Your task to perform on an android device: What's the weather going to be tomorrow? Image 0: 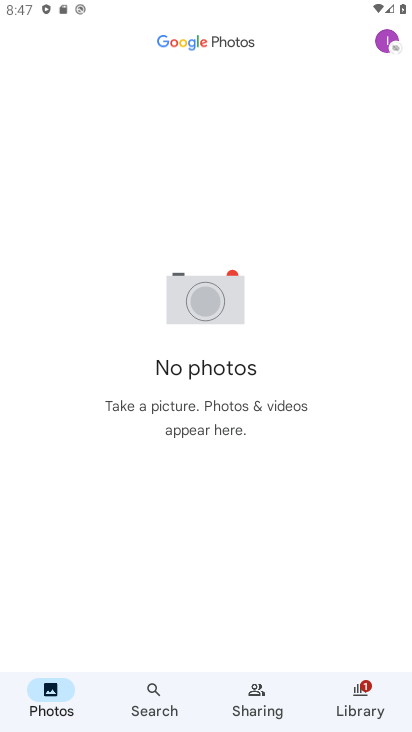
Step 0: press back button
Your task to perform on an android device: What's the weather going to be tomorrow? Image 1: 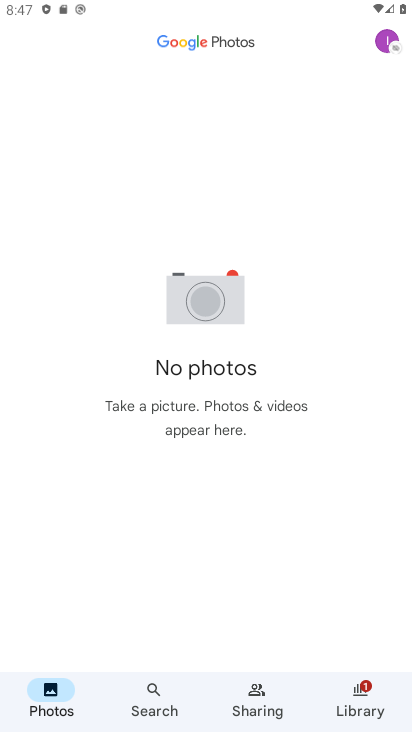
Step 1: press back button
Your task to perform on an android device: What's the weather going to be tomorrow? Image 2: 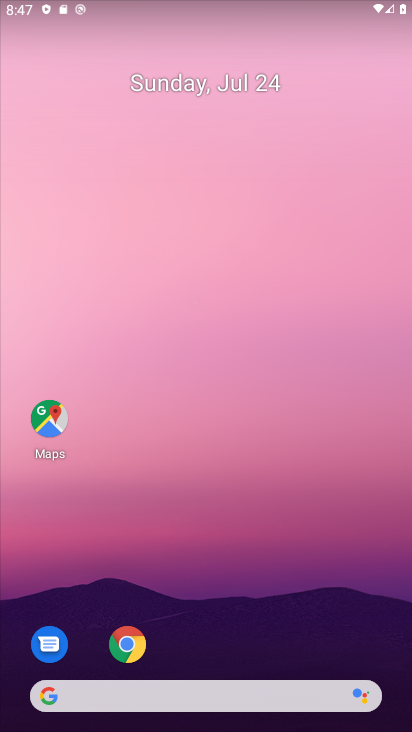
Step 2: drag from (309, 644) to (286, 36)
Your task to perform on an android device: What's the weather going to be tomorrow? Image 3: 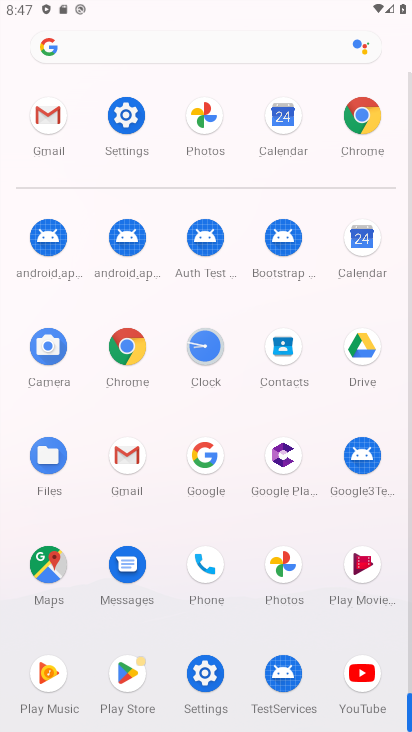
Step 3: click (364, 119)
Your task to perform on an android device: What's the weather going to be tomorrow? Image 4: 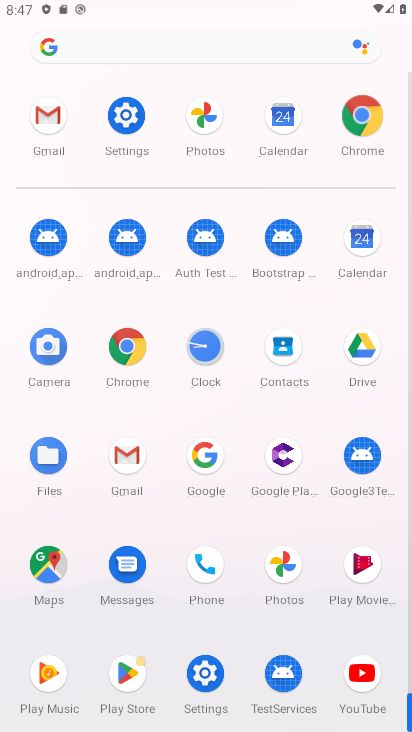
Step 4: click (363, 118)
Your task to perform on an android device: What's the weather going to be tomorrow? Image 5: 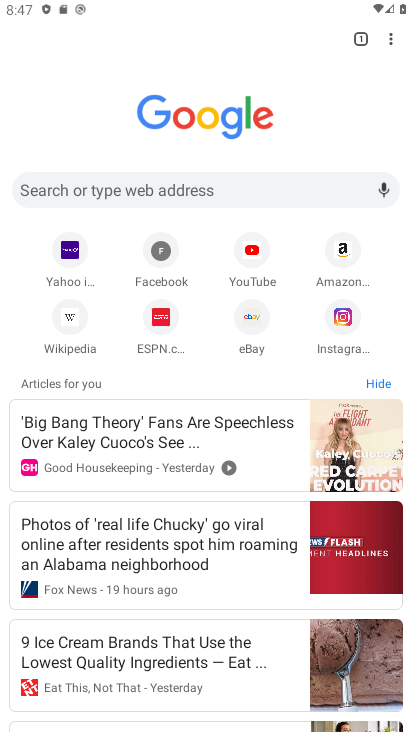
Step 5: click (114, 186)
Your task to perform on an android device: What's the weather going to be tomorrow? Image 6: 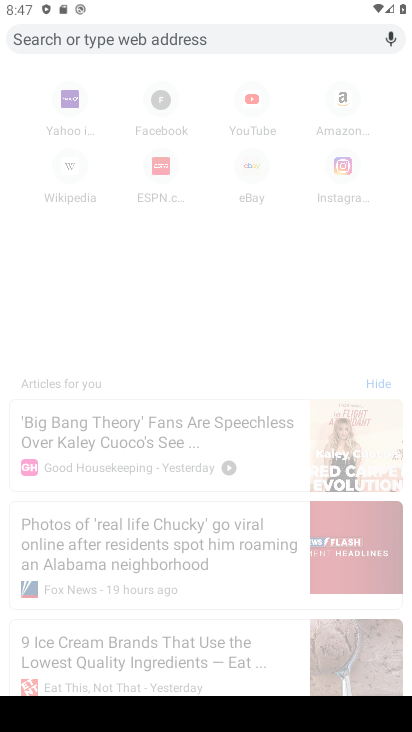
Step 6: type "what's the weather going to be tommorro"
Your task to perform on an android device: What's the weather going to be tomorrow? Image 7: 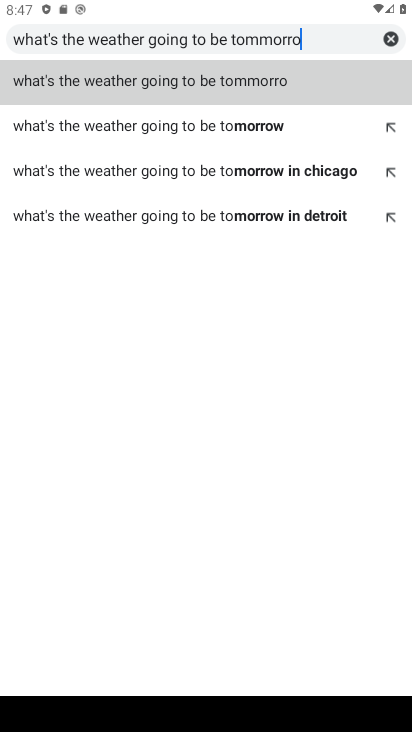
Step 7: click (281, 83)
Your task to perform on an android device: What's the weather going to be tomorrow? Image 8: 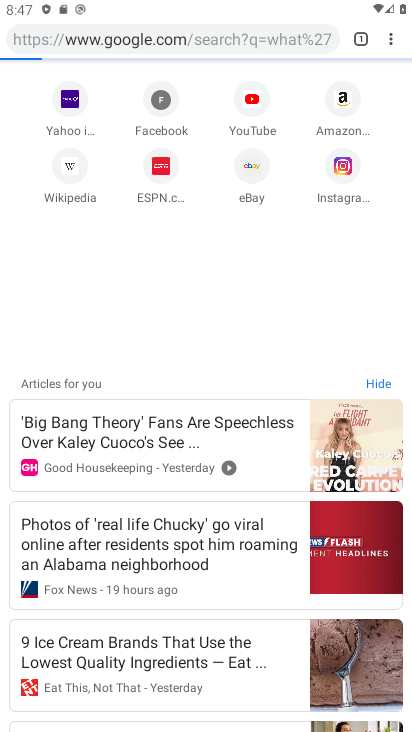
Step 8: click (253, 125)
Your task to perform on an android device: What's the weather going to be tomorrow? Image 9: 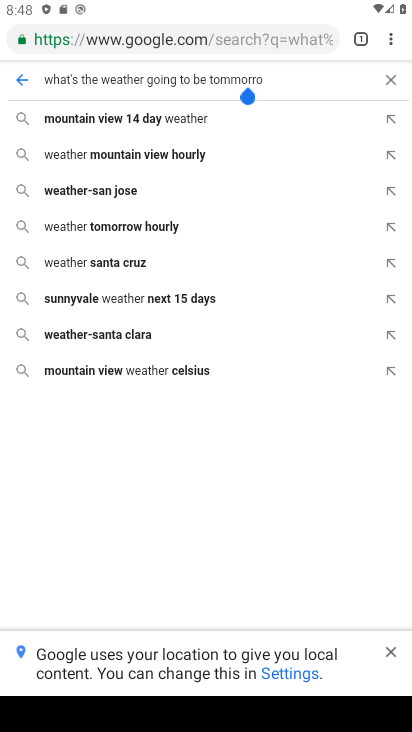
Step 9: task complete